Your task to perform on an android device: check out phone information Image 0: 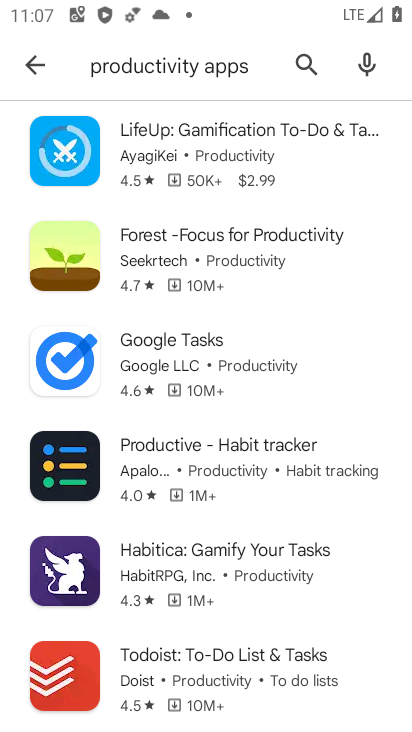
Step 0: press home button
Your task to perform on an android device: check out phone information Image 1: 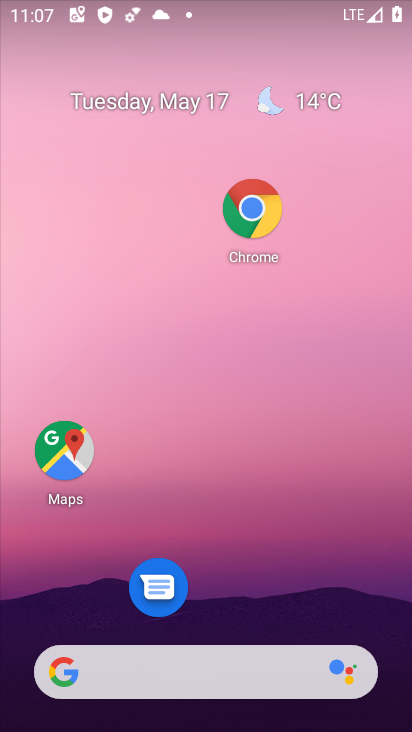
Step 1: drag from (284, 611) to (307, 29)
Your task to perform on an android device: check out phone information Image 2: 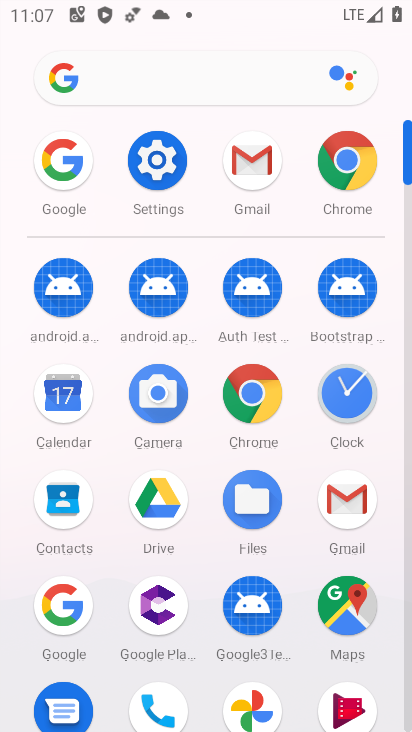
Step 2: click (162, 164)
Your task to perform on an android device: check out phone information Image 3: 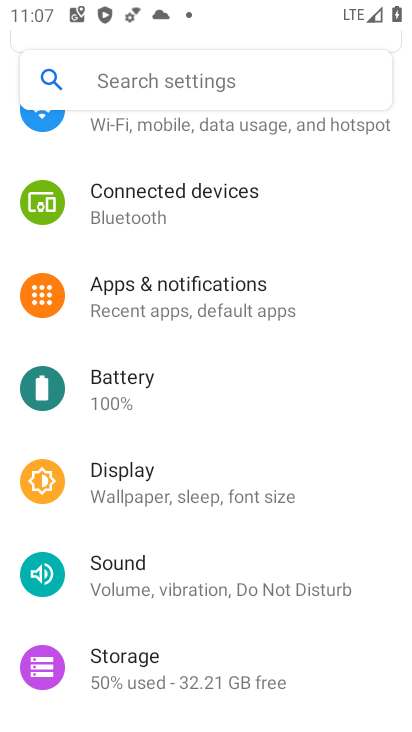
Step 3: drag from (273, 495) to (296, 170)
Your task to perform on an android device: check out phone information Image 4: 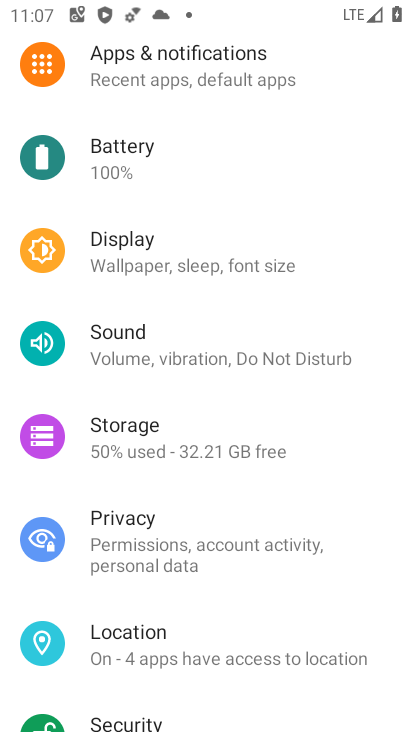
Step 4: drag from (291, 634) to (302, 213)
Your task to perform on an android device: check out phone information Image 5: 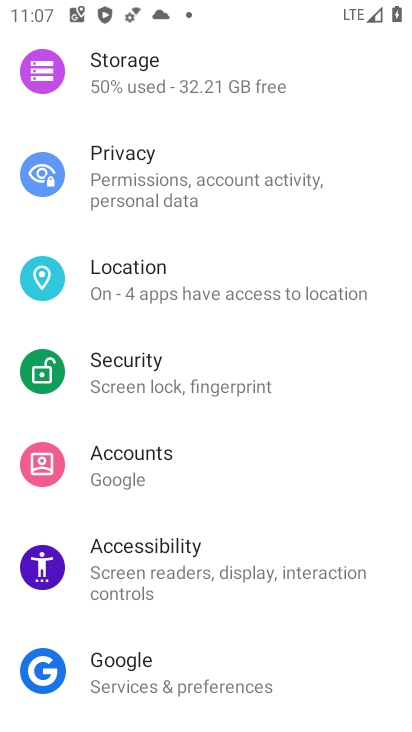
Step 5: drag from (244, 648) to (277, 136)
Your task to perform on an android device: check out phone information Image 6: 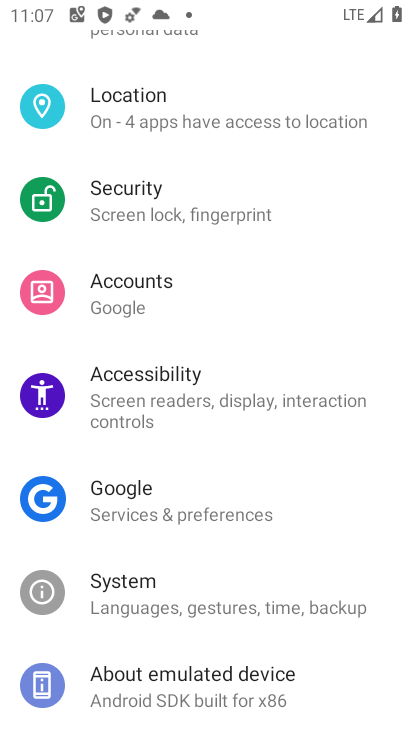
Step 6: click (254, 690)
Your task to perform on an android device: check out phone information Image 7: 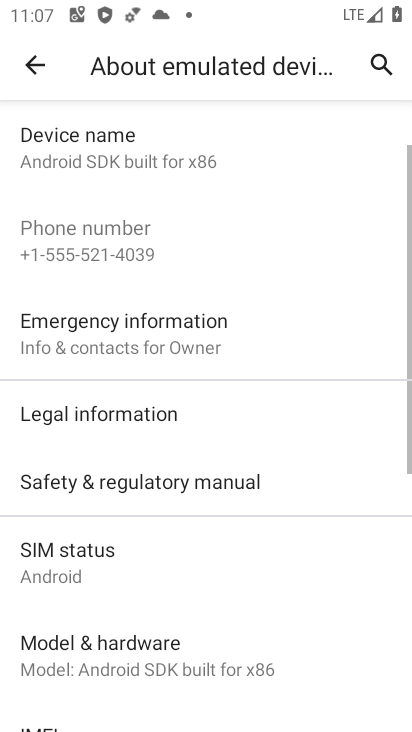
Step 7: drag from (258, 633) to (267, 309)
Your task to perform on an android device: check out phone information Image 8: 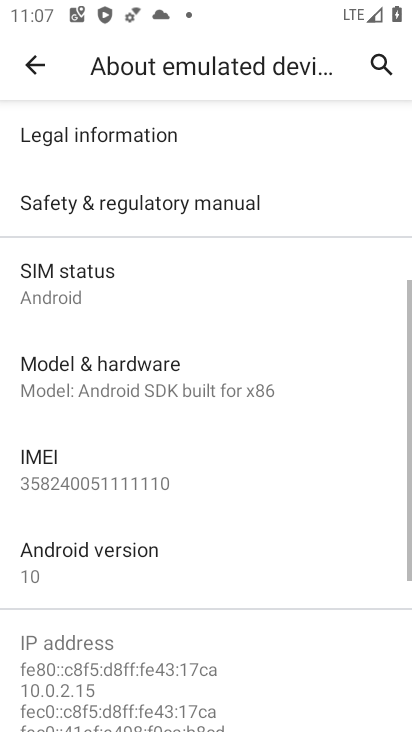
Step 8: click (198, 377)
Your task to perform on an android device: check out phone information Image 9: 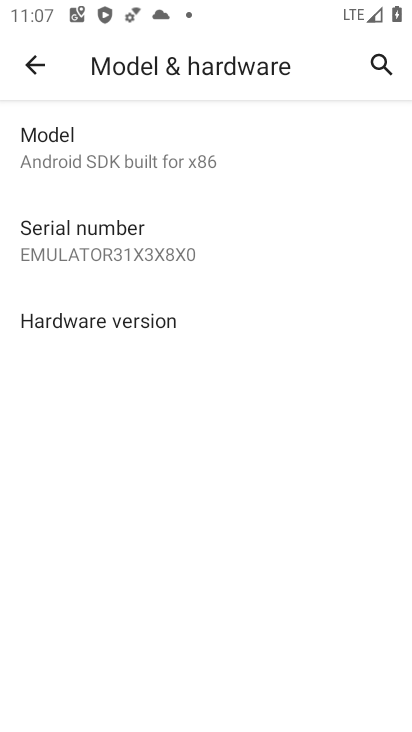
Step 9: task complete